Your task to perform on an android device: toggle data saver in the chrome app Image 0: 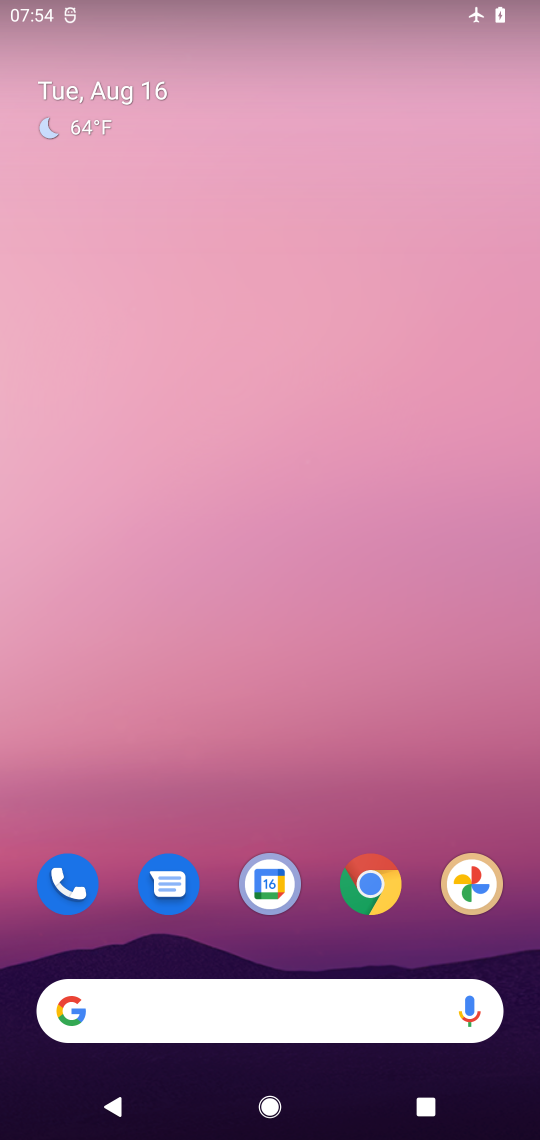
Step 0: press home button
Your task to perform on an android device: toggle data saver in the chrome app Image 1: 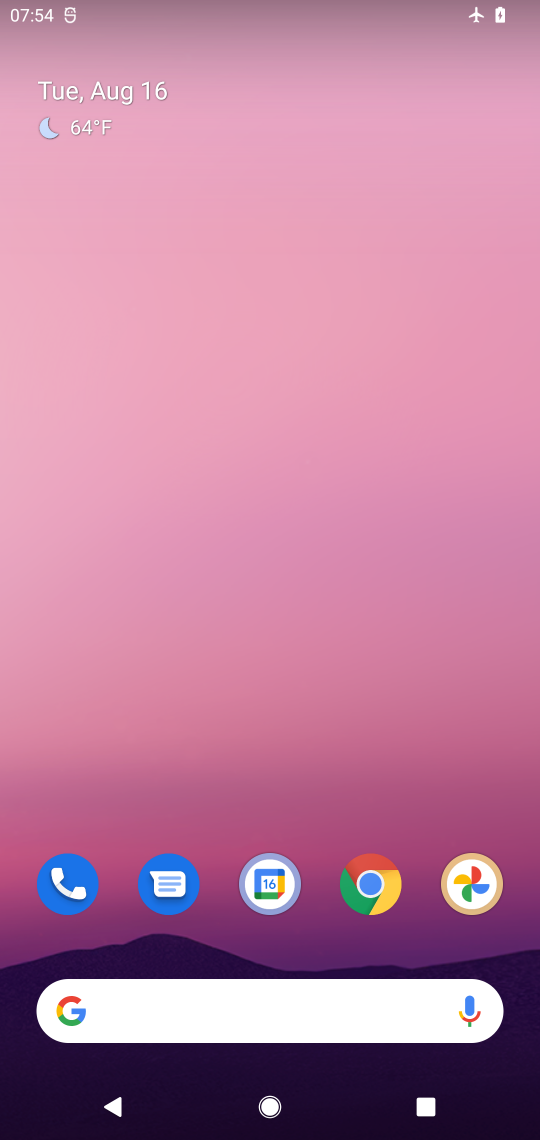
Step 1: click (366, 866)
Your task to perform on an android device: toggle data saver in the chrome app Image 2: 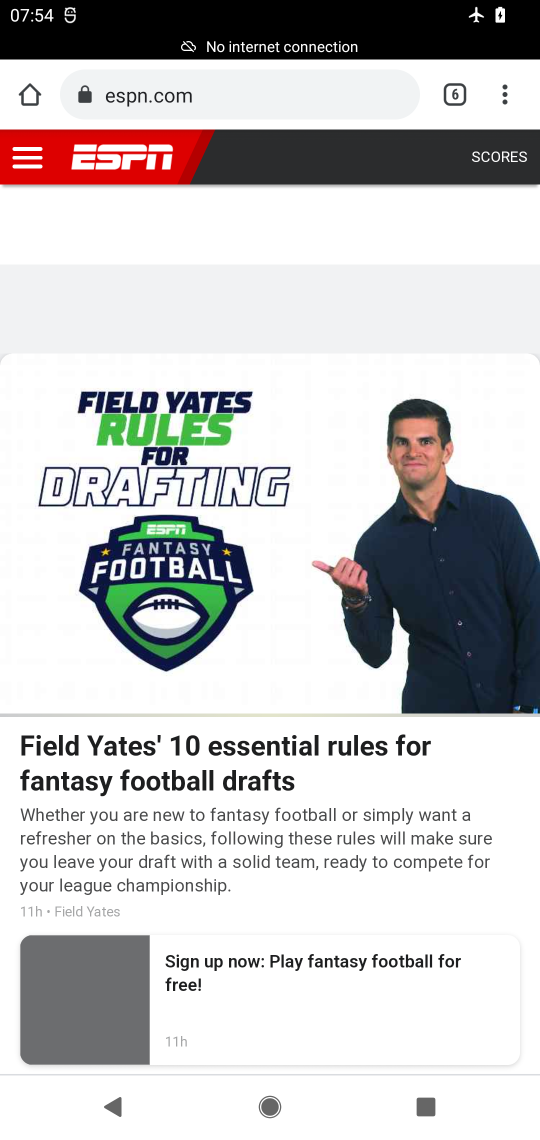
Step 2: drag from (495, 84) to (305, 793)
Your task to perform on an android device: toggle data saver in the chrome app Image 3: 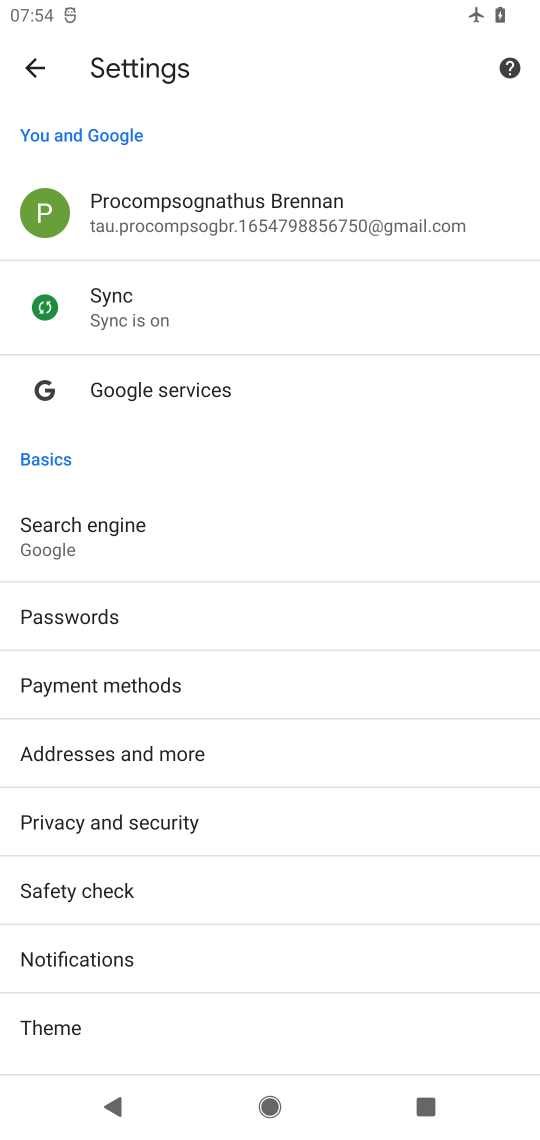
Step 3: drag from (241, 483) to (333, 43)
Your task to perform on an android device: toggle data saver in the chrome app Image 4: 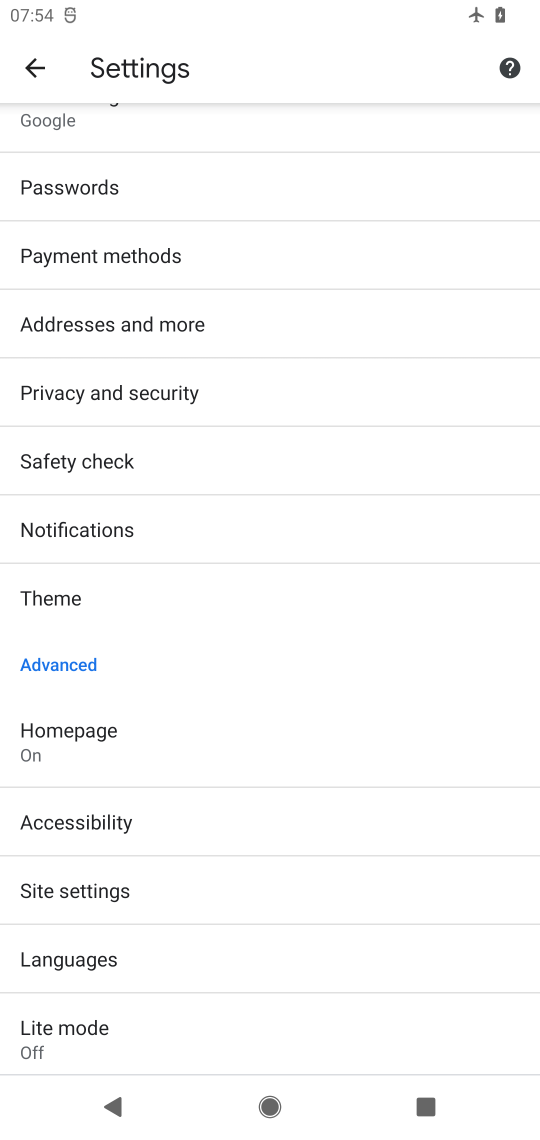
Step 4: click (97, 1039)
Your task to perform on an android device: toggle data saver in the chrome app Image 5: 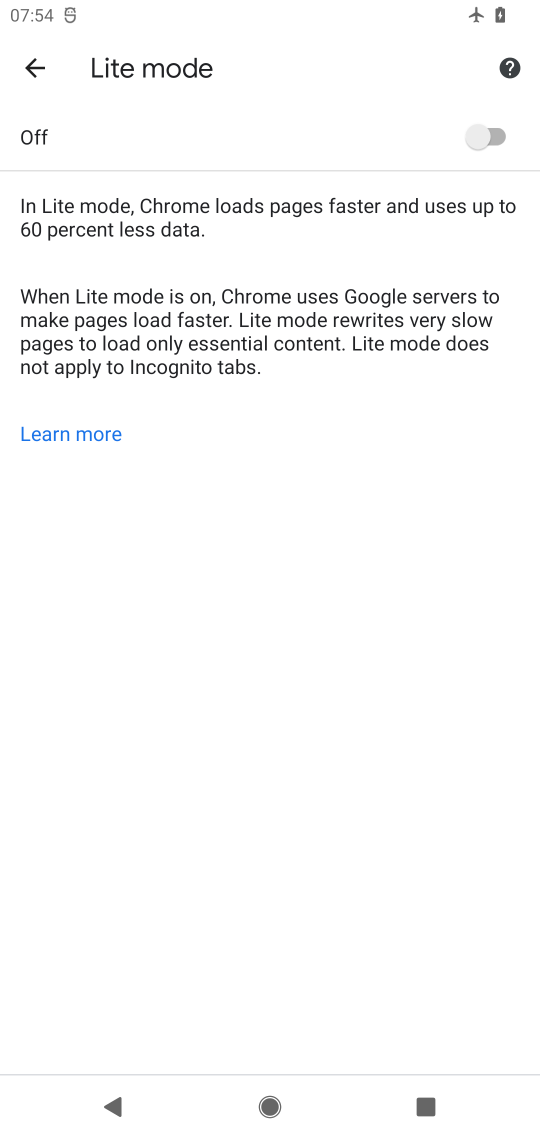
Step 5: click (476, 139)
Your task to perform on an android device: toggle data saver in the chrome app Image 6: 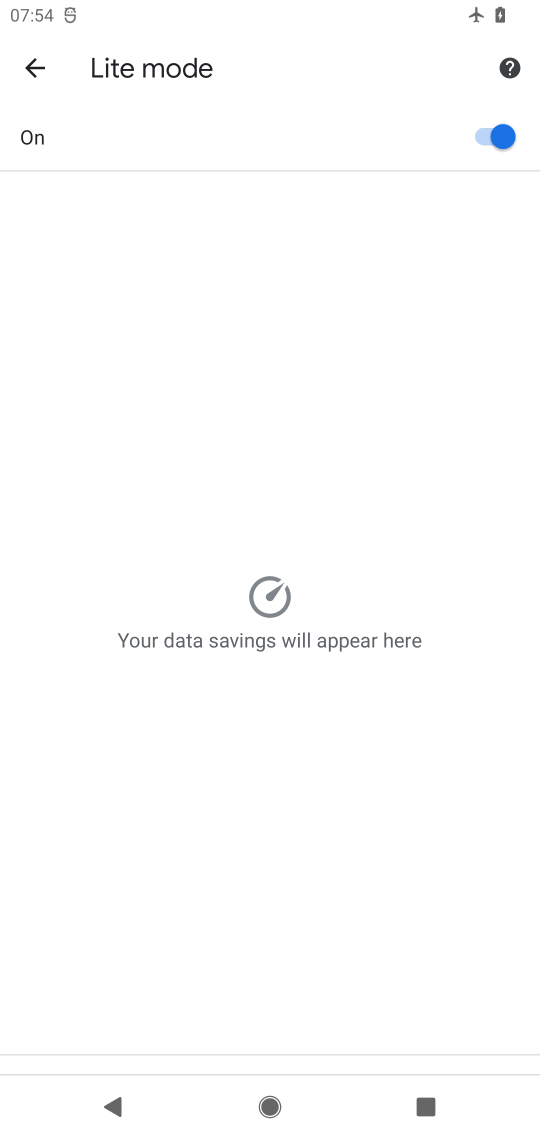
Step 6: task complete